Your task to perform on an android device: toggle sleep mode Image 0: 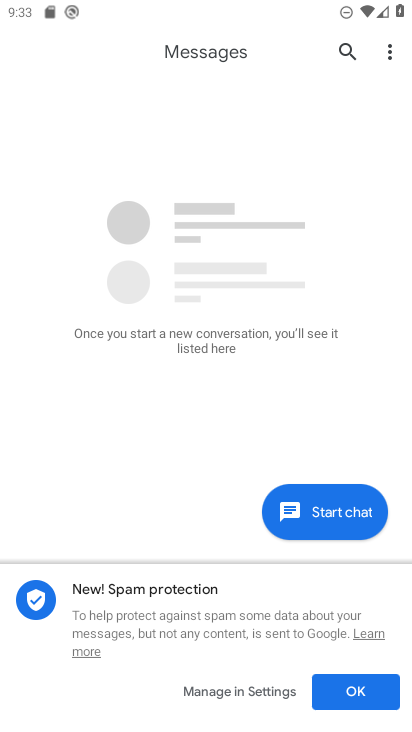
Step 0: press home button
Your task to perform on an android device: toggle sleep mode Image 1: 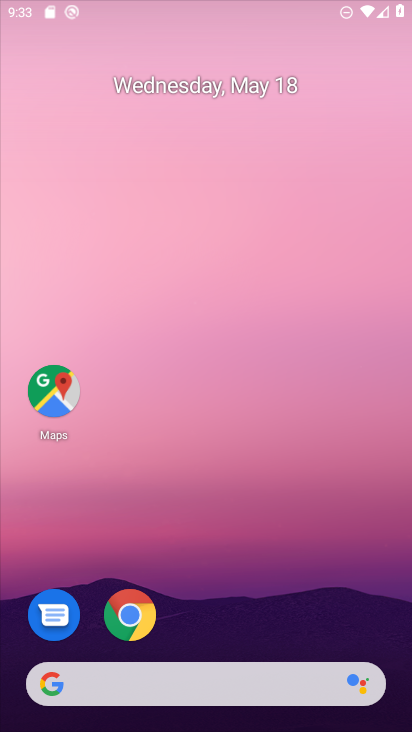
Step 1: drag from (210, 620) to (230, 149)
Your task to perform on an android device: toggle sleep mode Image 2: 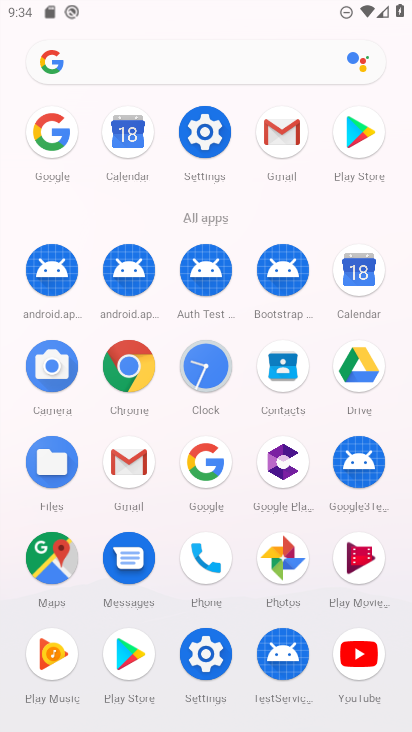
Step 2: click (209, 130)
Your task to perform on an android device: toggle sleep mode Image 3: 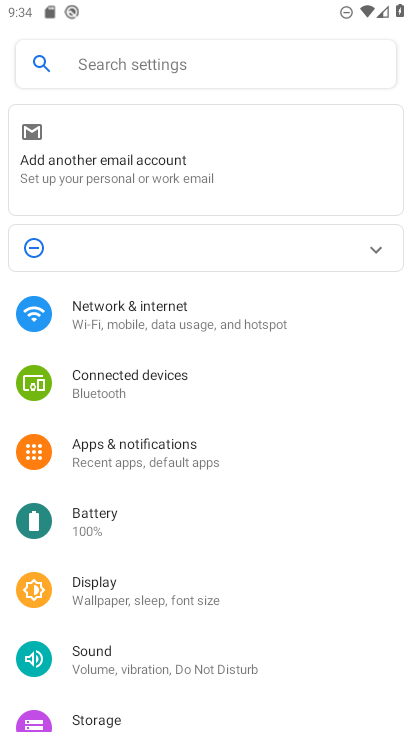
Step 3: drag from (254, 609) to (260, 397)
Your task to perform on an android device: toggle sleep mode Image 4: 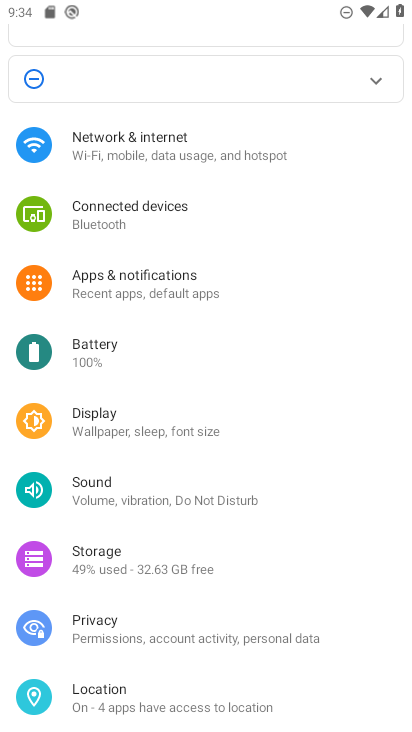
Step 4: click (163, 420)
Your task to perform on an android device: toggle sleep mode Image 5: 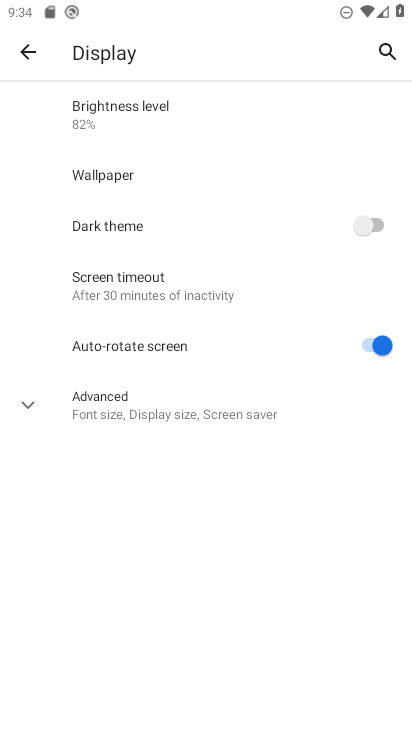
Step 5: click (141, 291)
Your task to perform on an android device: toggle sleep mode Image 6: 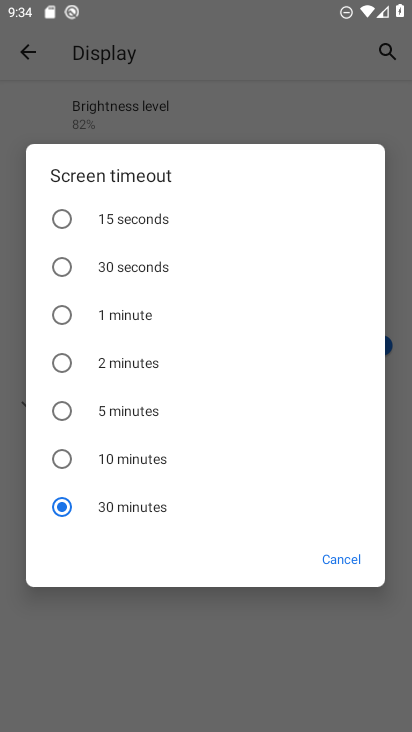
Step 6: click (60, 404)
Your task to perform on an android device: toggle sleep mode Image 7: 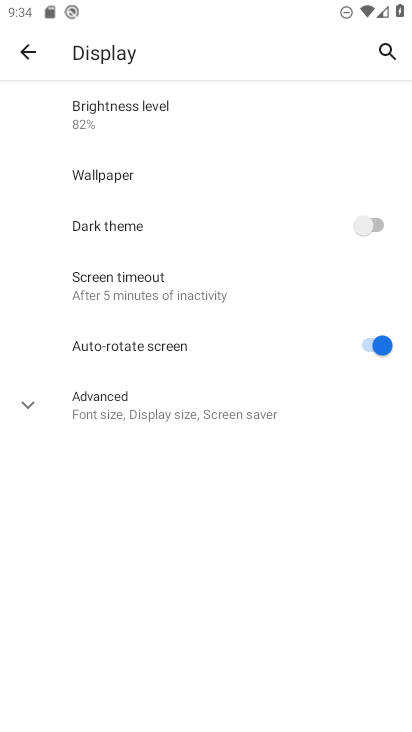
Step 7: task complete